Your task to perform on an android device: What is the recent news? Image 0: 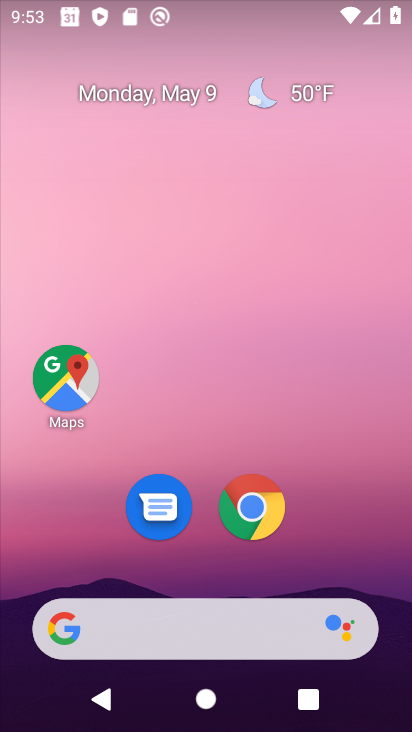
Step 0: drag from (12, 236) to (411, 161)
Your task to perform on an android device: What is the recent news? Image 1: 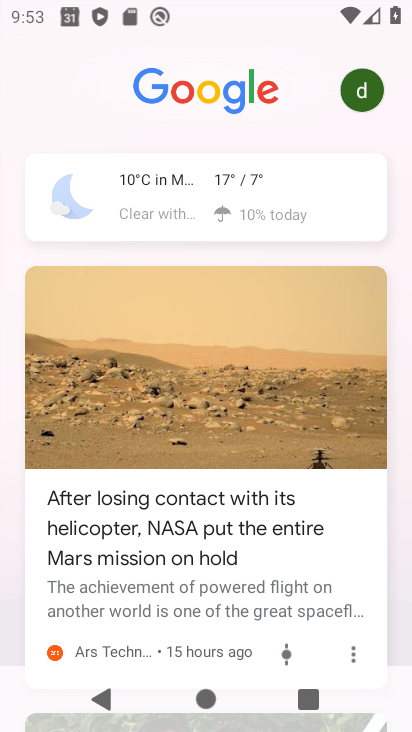
Step 1: task complete